Your task to perform on an android device: turn off translation in the chrome app Image 0: 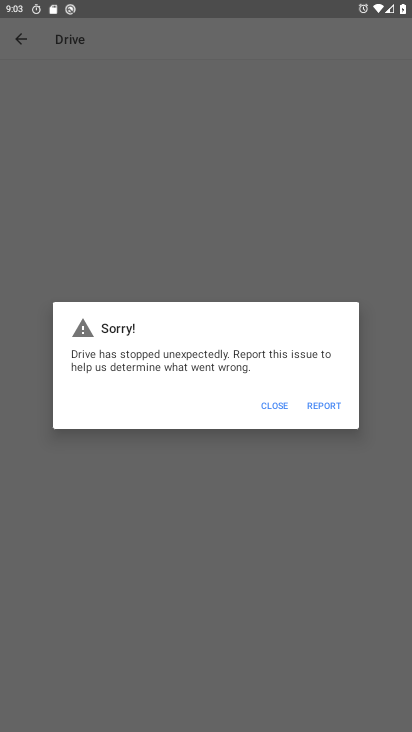
Step 0: press home button
Your task to perform on an android device: turn off translation in the chrome app Image 1: 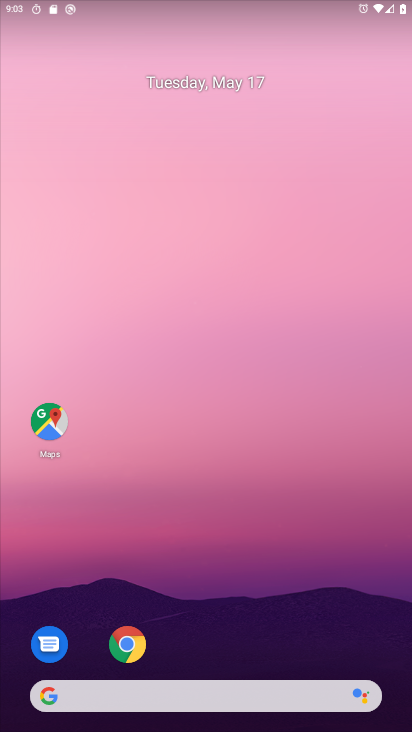
Step 1: click (125, 640)
Your task to perform on an android device: turn off translation in the chrome app Image 2: 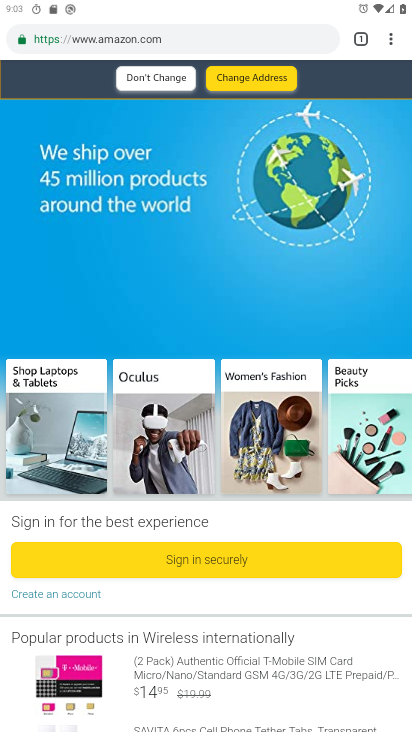
Step 2: click (393, 41)
Your task to perform on an android device: turn off translation in the chrome app Image 3: 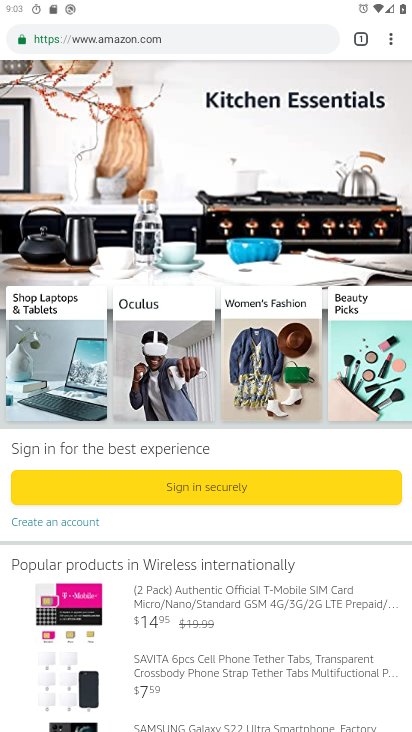
Step 3: click (393, 34)
Your task to perform on an android device: turn off translation in the chrome app Image 4: 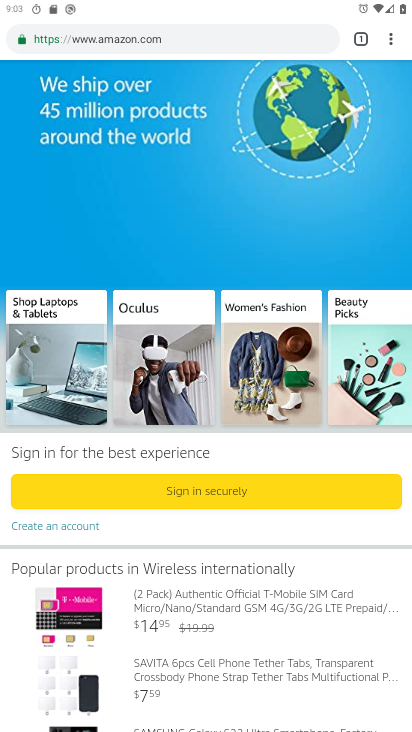
Step 4: click (387, 36)
Your task to perform on an android device: turn off translation in the chrome app Image 5: 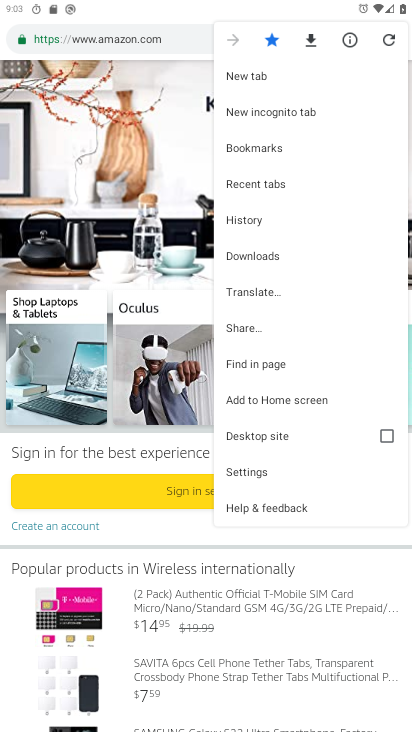
Step 5: click (275, 471)
Your task to perform on an android device: turn off translation in the chrome app Image 6: 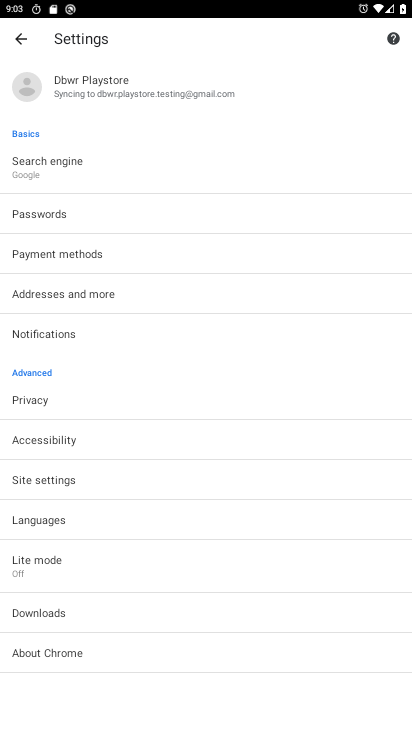
Step 6: click (71, 519)
Your task to perform on an android device: turn off translation in the chrome app Image 7: 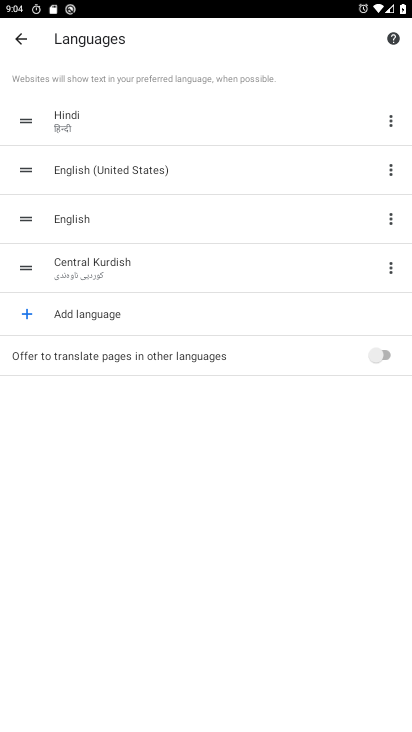
Step 7: task complete